Your task to perform on an android device: Search for seafood restaurants on Google Maps Image 0: 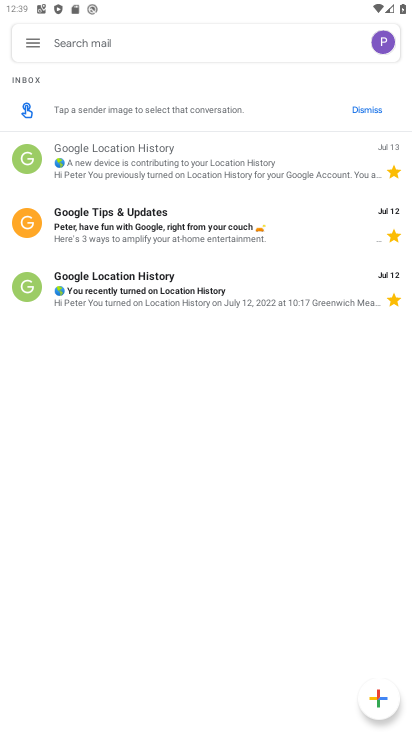
Step 0: press home button
Your task to perform on an android device: Search for seafood restaurants on Google Maps Image 1: 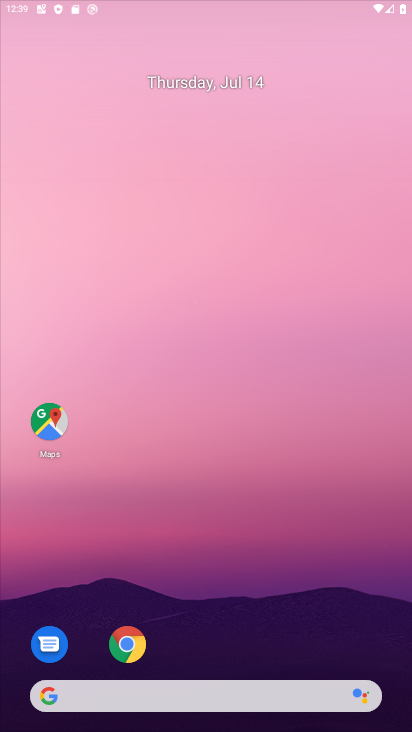
Step 1: drag from (127, 639) to (146, 87)
Your task to perform on an android device: Search for seafood restaurants on Google Maps Image 2: 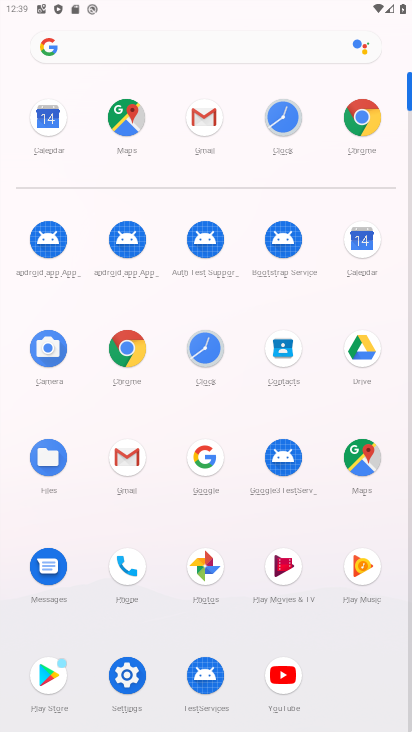
Step 2: click (365, 473)
Your task to perform on an android device: Search for seafood restaurants on Google Maps Image 3: 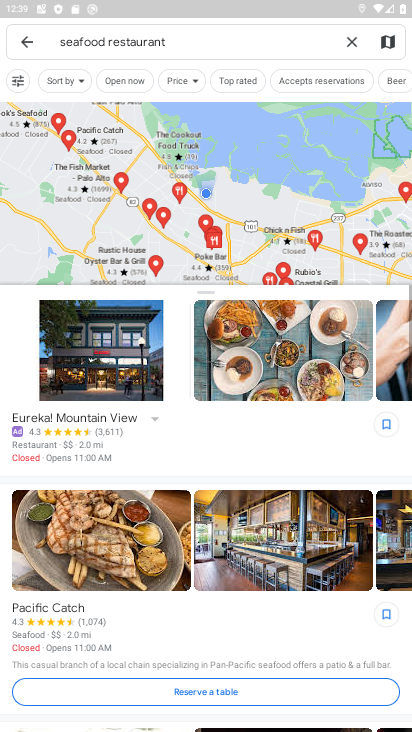
Step 3: task complete